Your task to perform on an android device: refresh tabs in the chrome app Image 0: 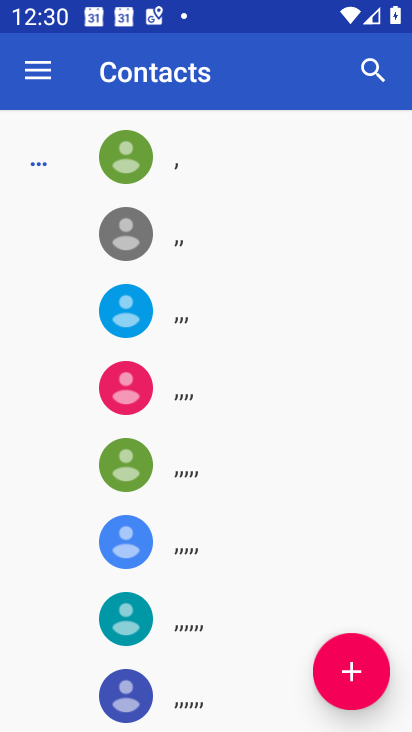
Step 0: press home button
Your task to perform on an android device: refresh tabs in the chrome app Image 1: 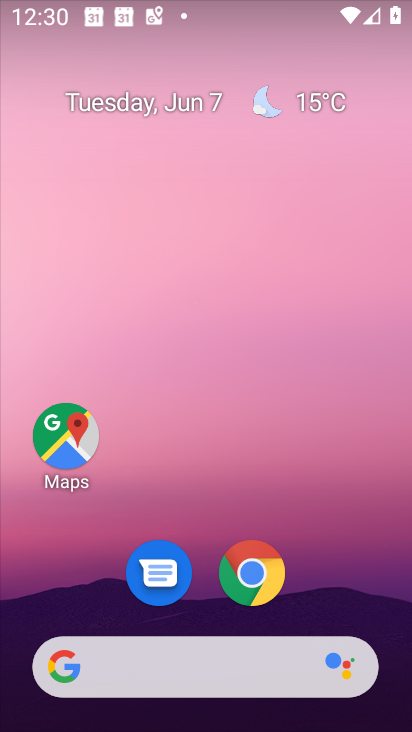
Step 1: click (260, 573)
Your task to perform on an android device: refresh tabs in the chrome app Image 2: 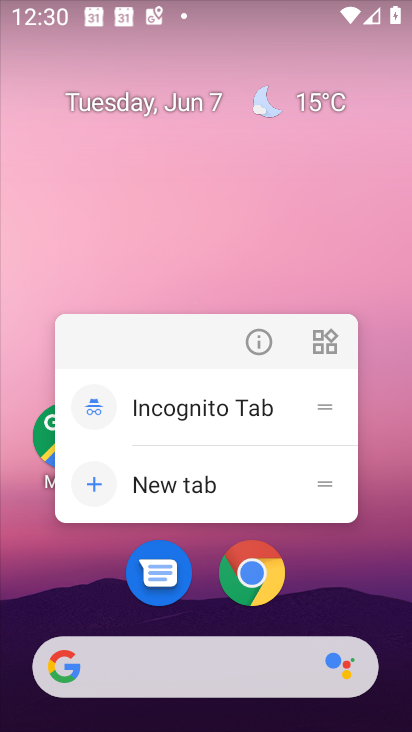
Step 2: click (245, 597)
Your task to perform on an android device: refresh tabs in the chrome app Image 3: 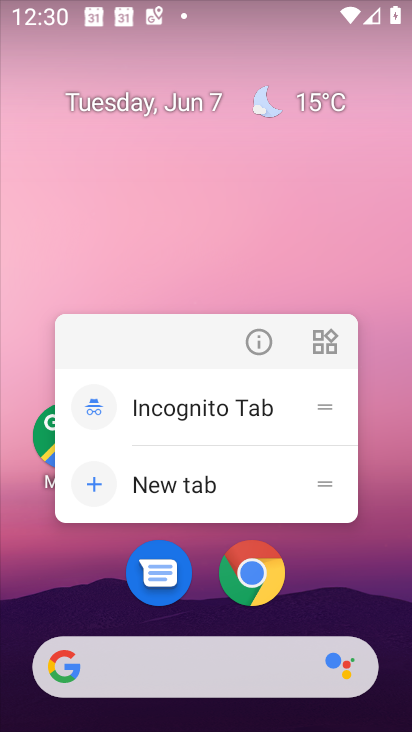
Step 3: click (245, 597)
Your task to perform on an android device: refresh tabs in the chrome app Image 4: 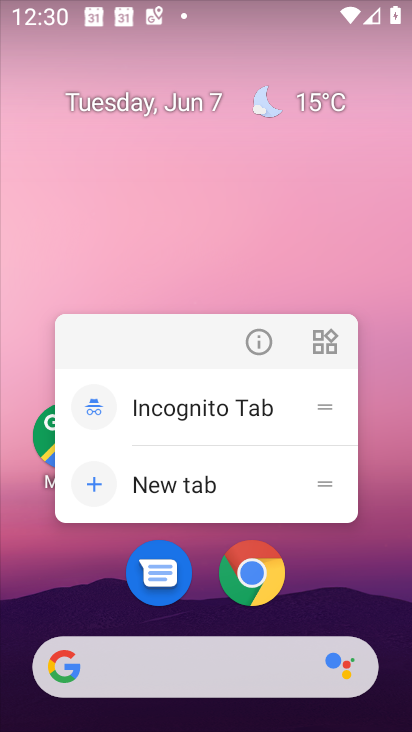
Step 4: click (253, 575)
Your task to perform on an android device: refresh tabs in the chrome app Image 5: 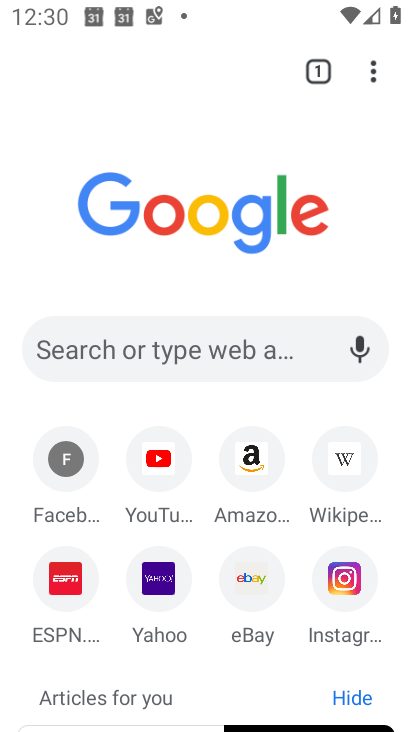
Step 5: click (372, 73)
Your task to perform on an android device: refresh tabs in the chrome app Image 6: 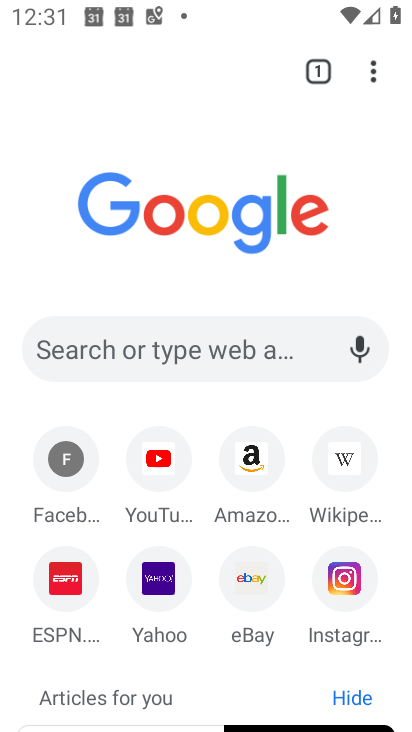
Step 6: click (366, 66)
Your task to perform on an android device: refresh tabs in the chrome app Image 7: 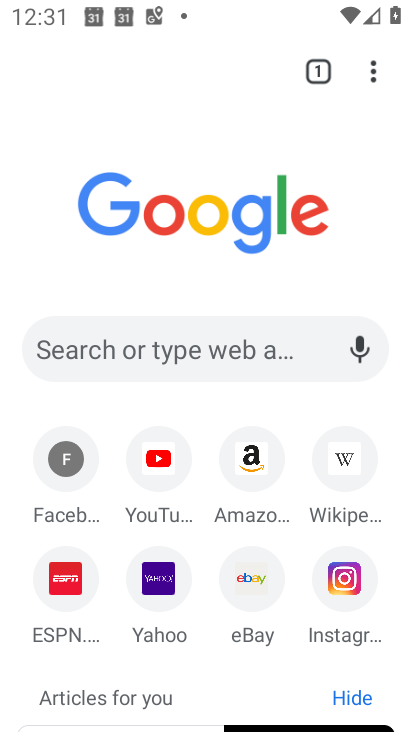
Step 7: click (372, 74)
Your task to perform on an android device: refresh tabs in the chrome app Image 8: 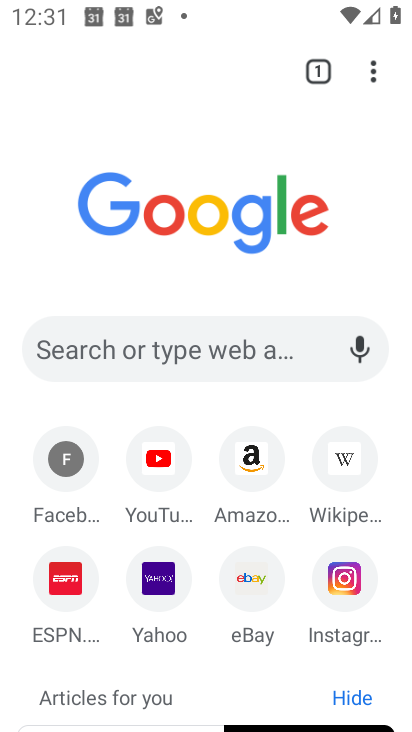
Step 8: click (375, 76)
Your task to perform on an android device: refresh tabs in the chrome app Image 9: 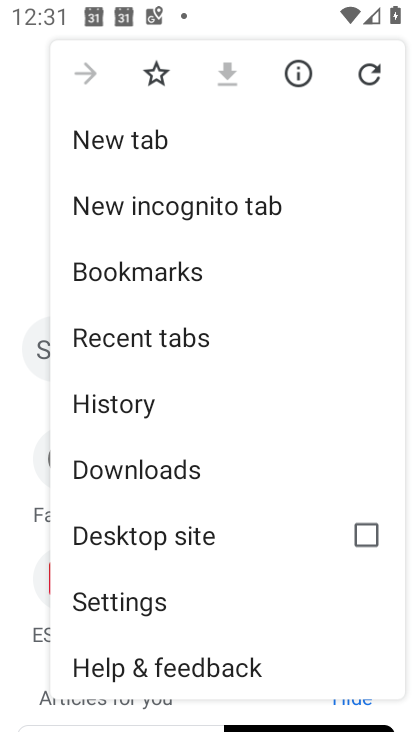
Step 9: click (377, 87)
Your task to perform on an android device: refresh tabs in the chrome app Image 10: 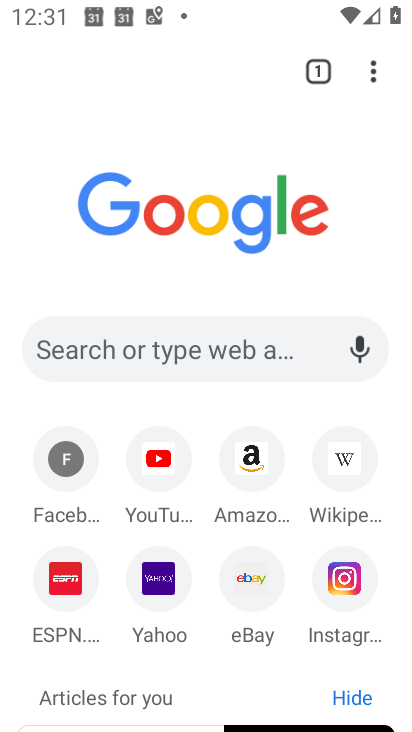
Step 10: task complete